Your task to perform on an android device: Open settings Image 0: 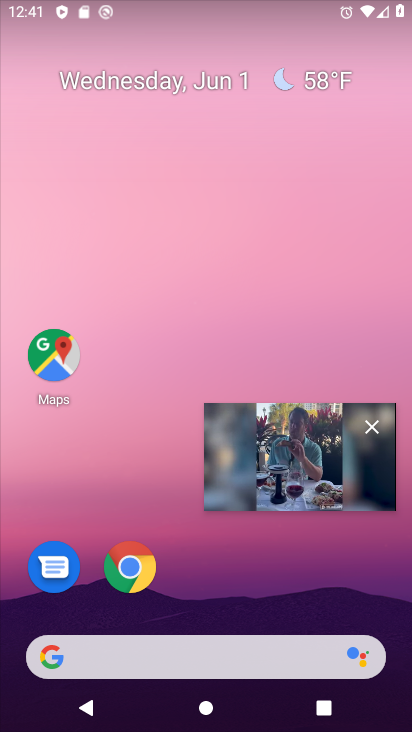
Step 0: click (374, 430)
Your task to perform on an android device: Open settings Image 1: 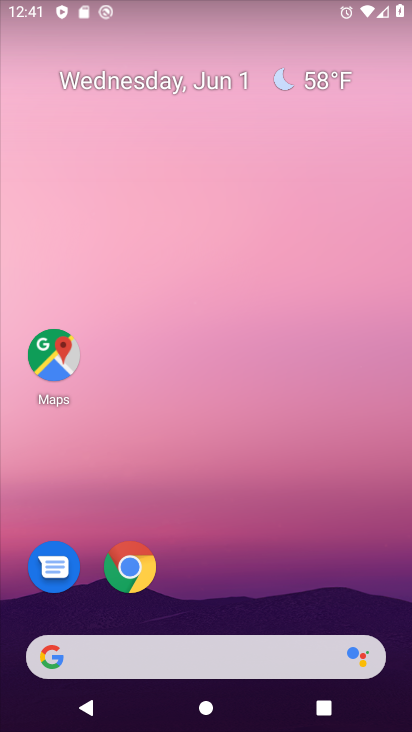
Step 1: drag from (221, 591) to (209, 107)
Your task to perform on an android device: Open settings Image 2: 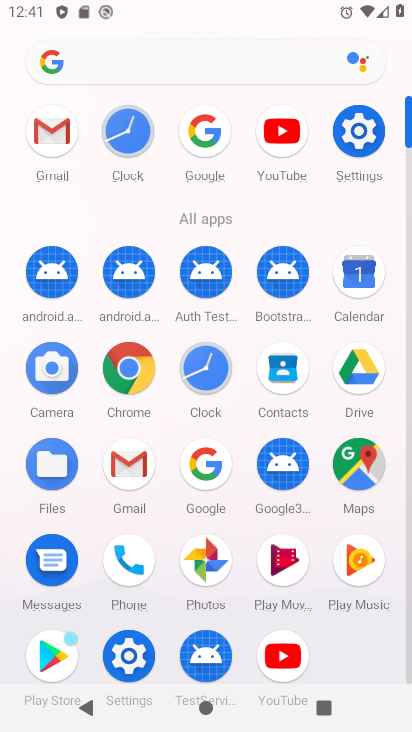
Step 2: click (361, 134)
Your task to perform on an android device: Open settings Image 3: 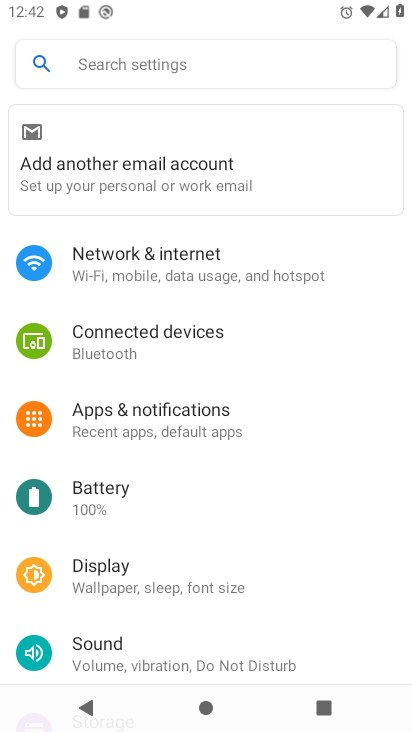
Step 3: task complete